Your task to perform on an android device: turn on wifi Image 0: 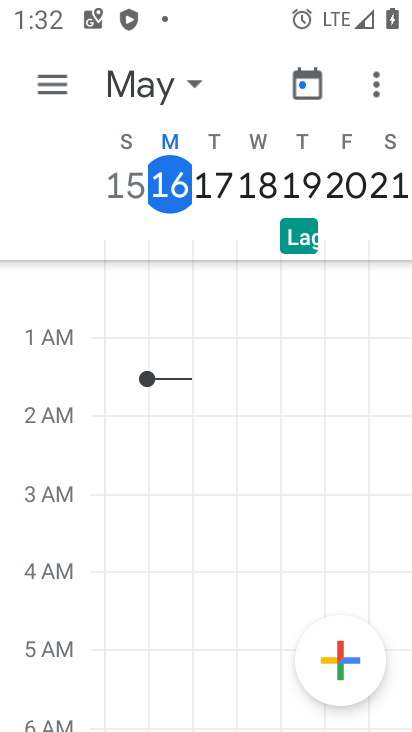
Step 0: press home button
Your task to perform on an android device: turn on wifi Image 1: 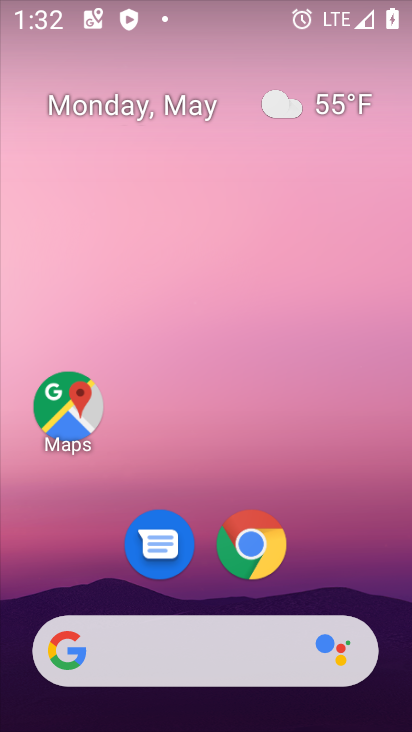
Step 1: drag from (400, 641) to (366, 74)
Your task to perform on an android device: turn on wifi Image 2: 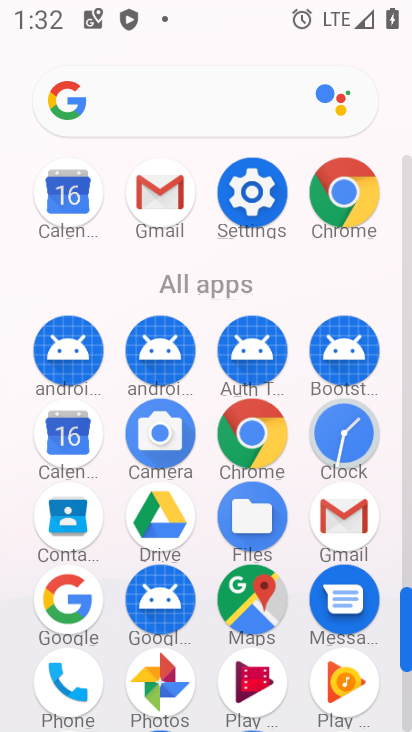
Step 2: click (409, 714)
Your task to perform on an android device: turn on wifi Image 3: 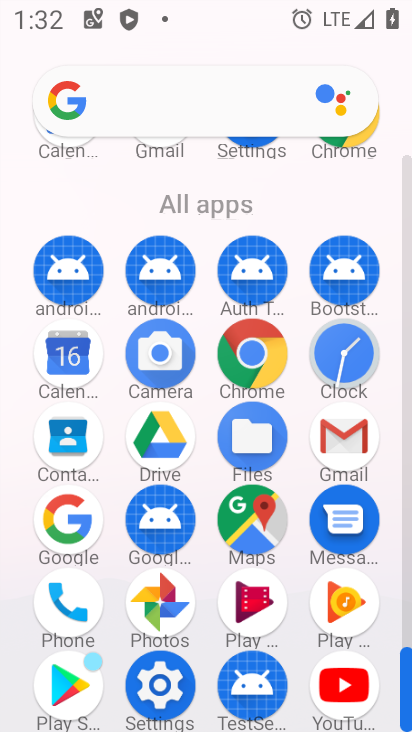
Step 3: click (161, 690)
Your task to perform on an android device: turn on wifi Image 4: 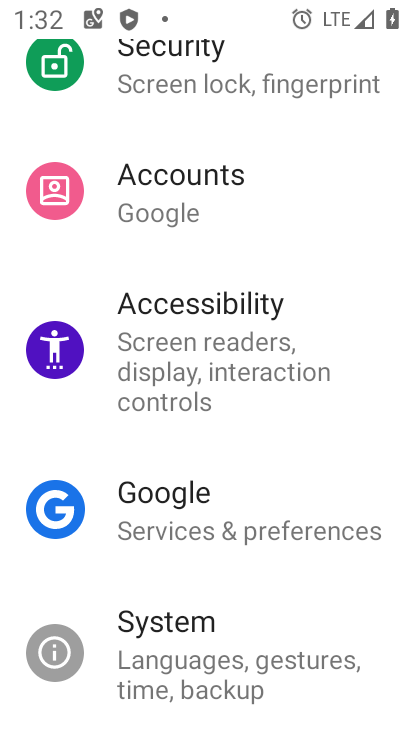
Step 4: drag from (379, 311) to (381, 626)
Your task to perform on an android device: turn on wifi Image 5: 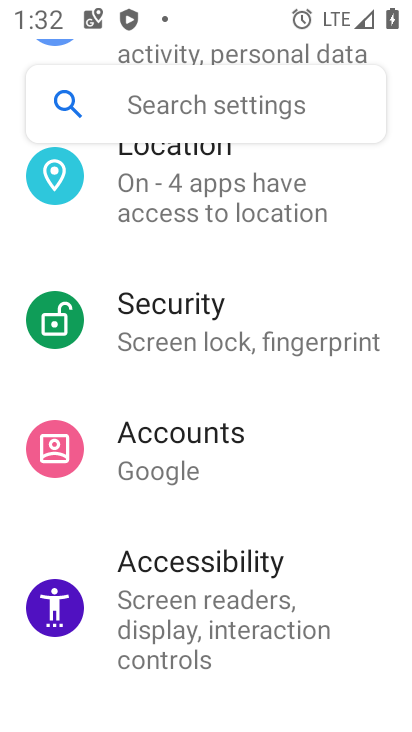
Step 5: drag from (392, 239) to (364, 583)
Your task to perform on an android device: turn on wifi Image 6: 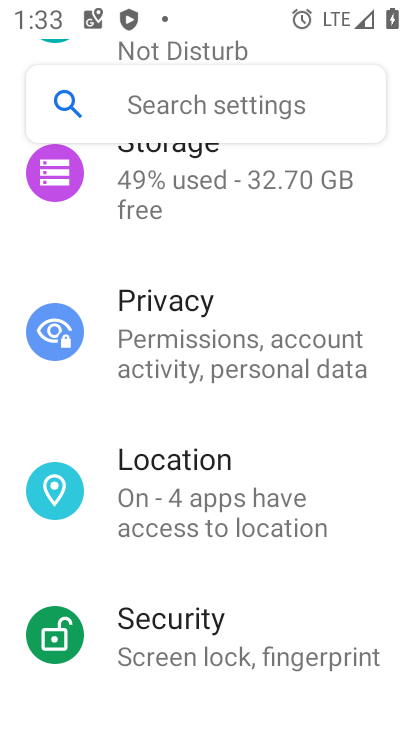
Step 6: drag from (361, 245) to (340, 602)
Your task to perform on an android device: turn on wifi Image 7: 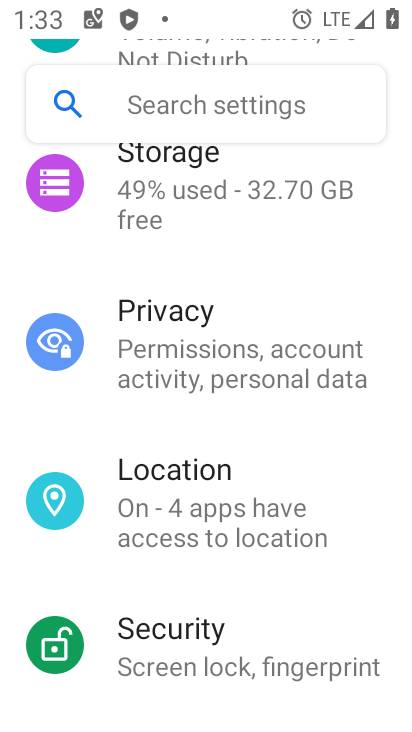
Step 7: drag from (362, 255) to (341, 569)
Your task to perform on an android device: turn on wifi Image 8: 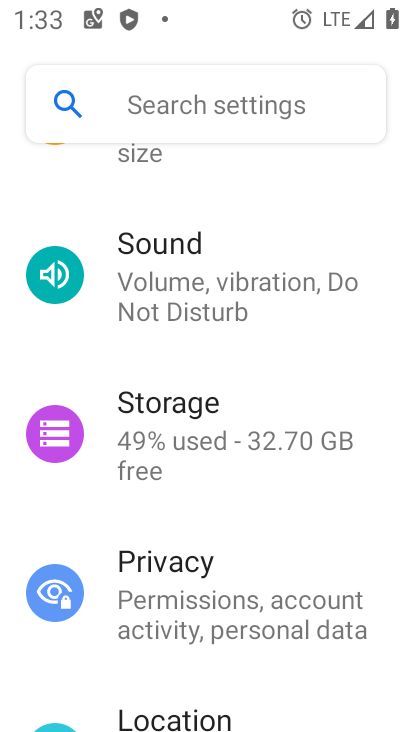
Step 8: drag from (365, 191) to (347, 499)
Your task to perform on an android device: turn on wifi Image 9: 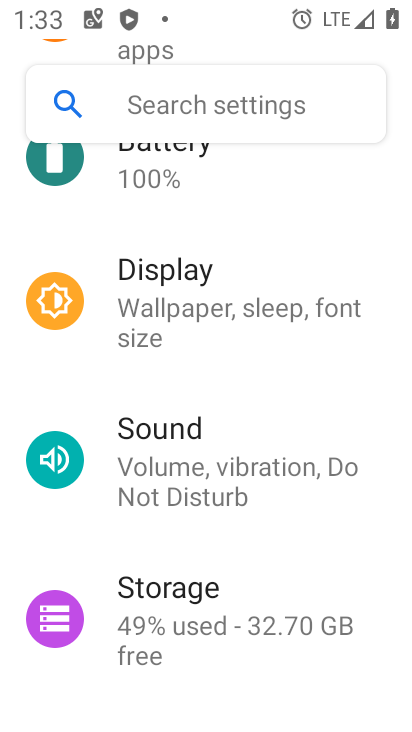
Step 9: drag from (348, 239) to (348, 554)
Your task to perform on an android device: turn on wifi Image 10: 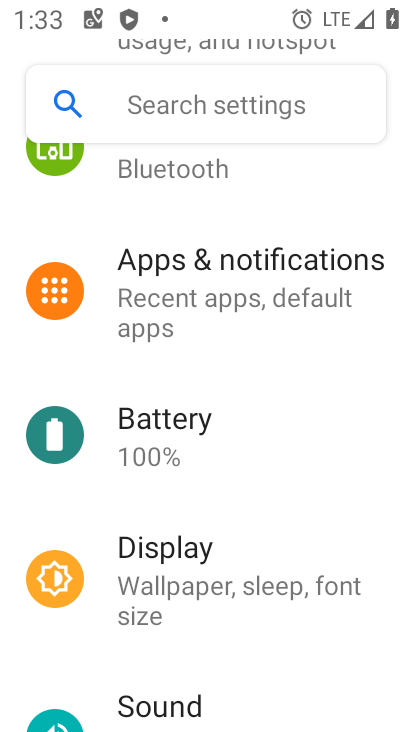
Step 10: drag from (370, 217) to (365, 504)
Your task to perform on an android device: turn on wifi Image 11: 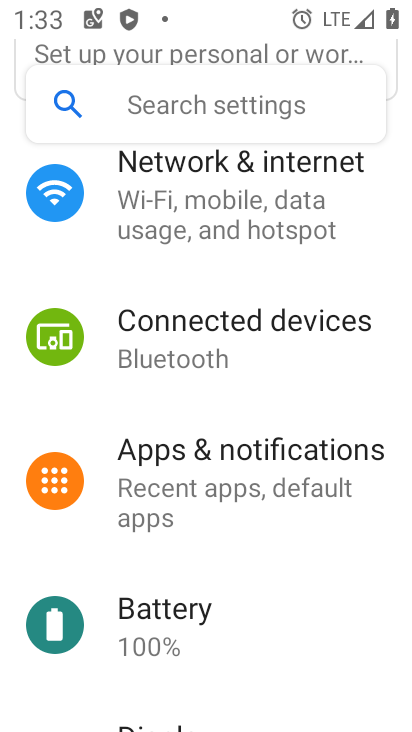
Step 11: click (184, 184)
Your task to perform on an android device: turn on wifi Image 12: 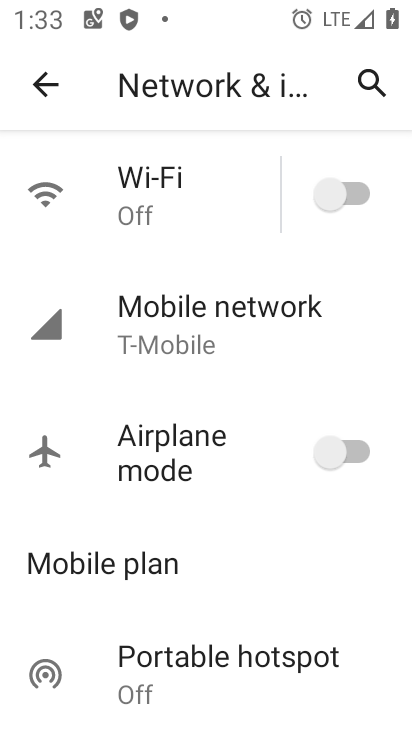
Step 12: click (352, 188)
Your task to perform on an android device: turn on wifi Image 13: 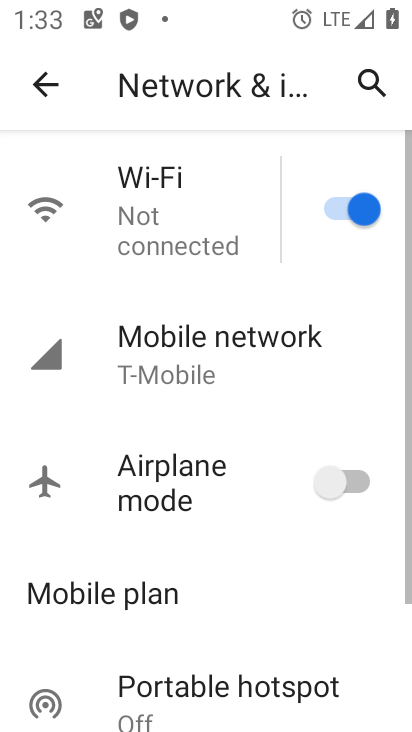
Step 13: task complete